Your task to perform on an android device: Search for pizza restaurants on Maps Image 0: 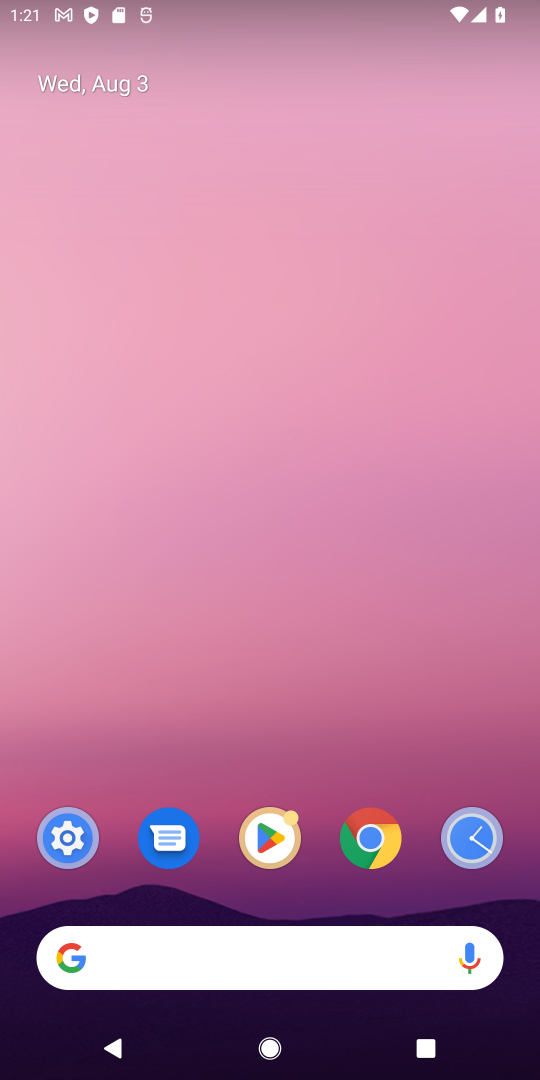
Step 0: drag from (201, 829) to (315, 4)
Your task to perform on an android device: Search for pizza restaurants on Maps Image 1: 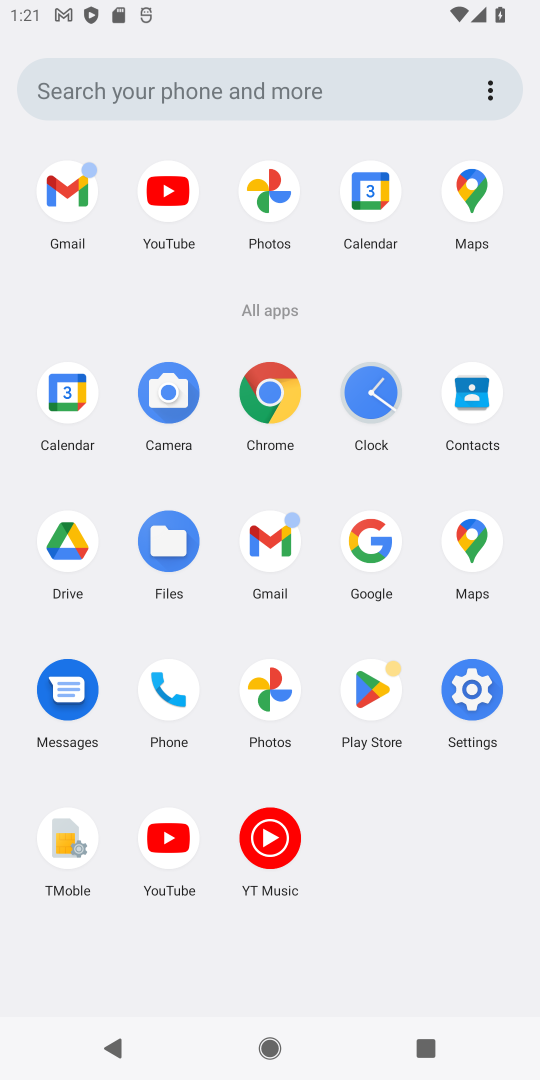
Step 1: click (465, 187)
Your task to perform on an android device: Search for pizza restaurants on Maps Image 2: 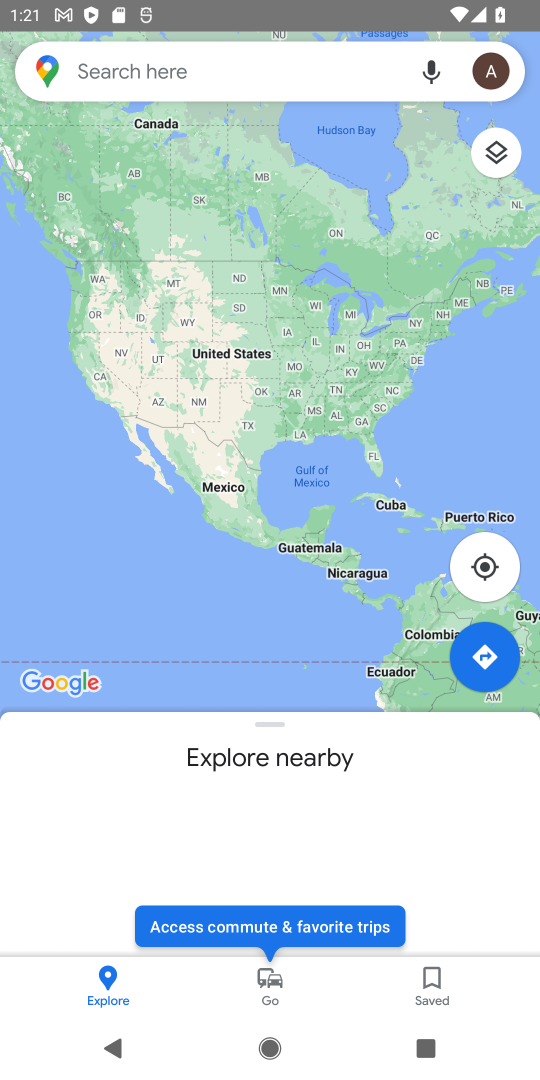
Step 2: click (222, 67)
Your task to perform on an android device: Search for pizza restaurants on Maps Image 3: 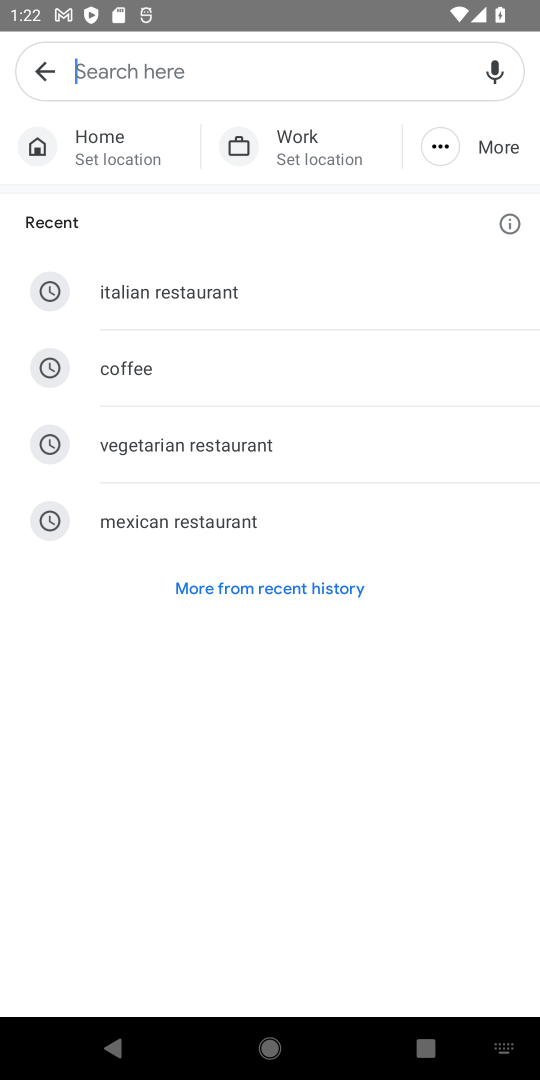
Step 3: type "pizza restaurants"
Your task to perform on an android device: Search for pizza restaurants on Maps Image 4: 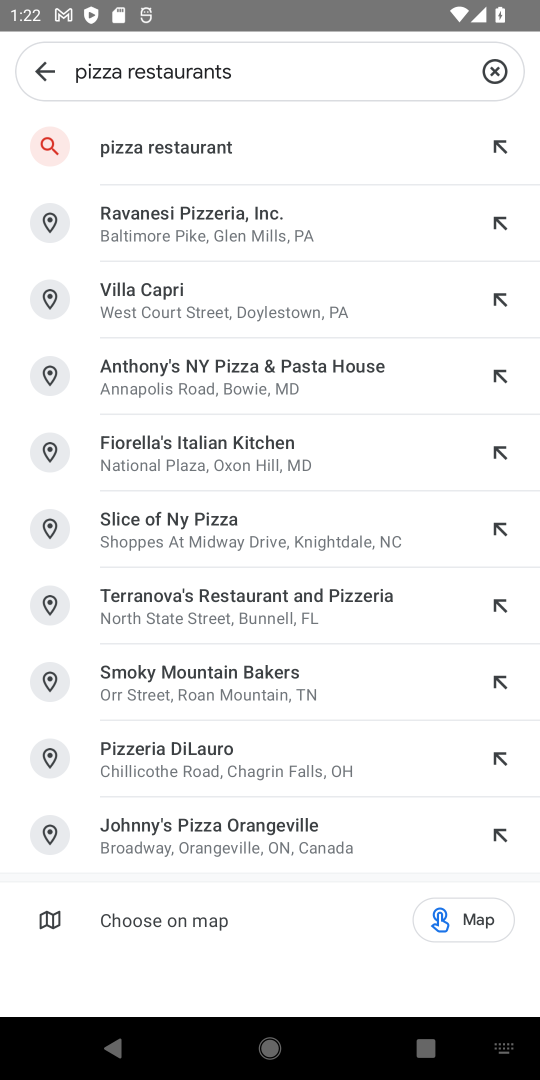
Step 4: click (182, 151)
Your task to perform on an android device: Search for pizza restaurants on Maps Image 5: 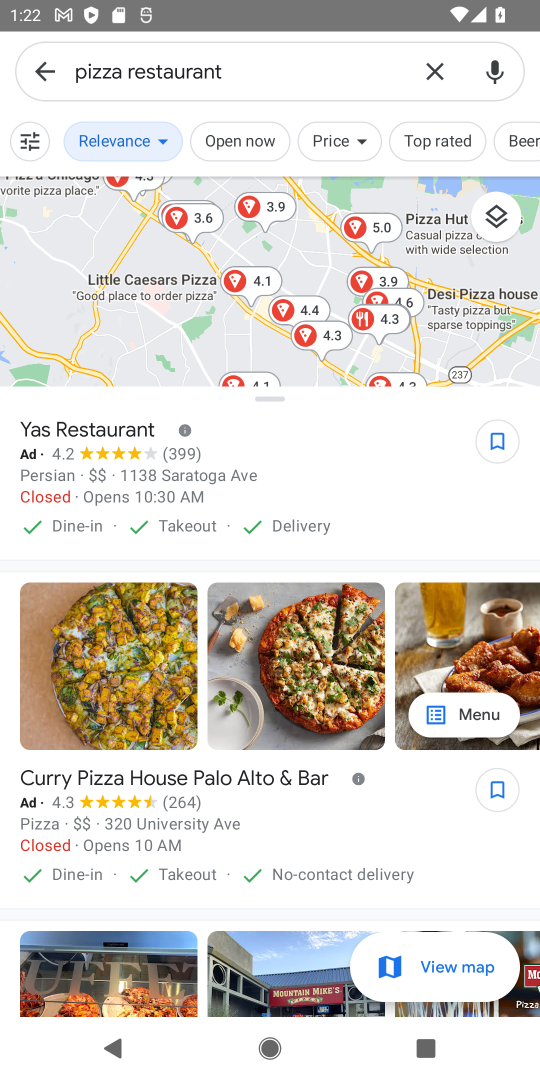
Step 5: task complete